Your task to perform on an android device: Show me recent news Image 0: 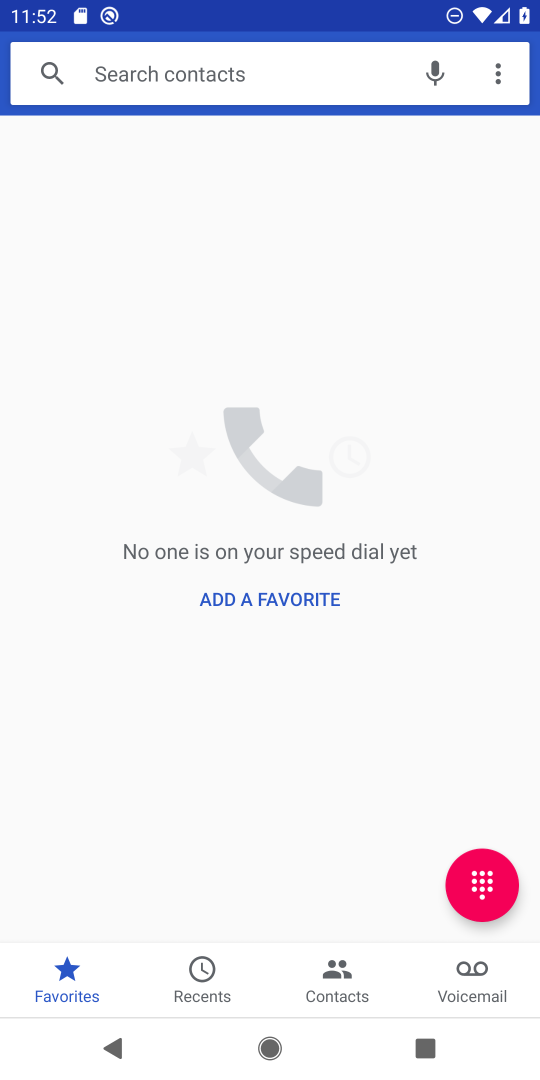
Step 0: press back button
Your task to perform on an android device: Show me recent news Image 1: 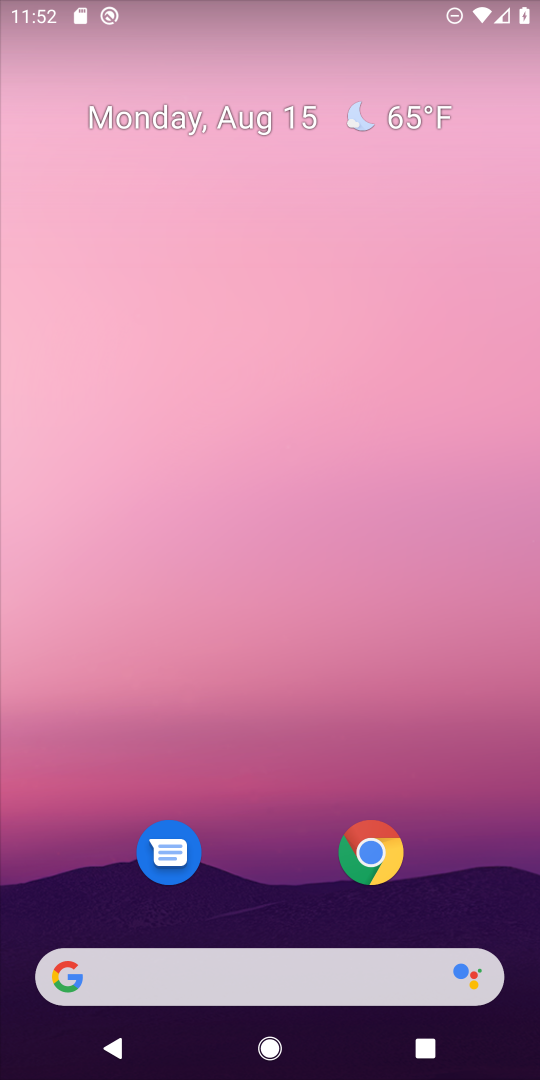
Step 1: click (275, 967)
Your task to perform on an android device: Show me recent news Image 2: 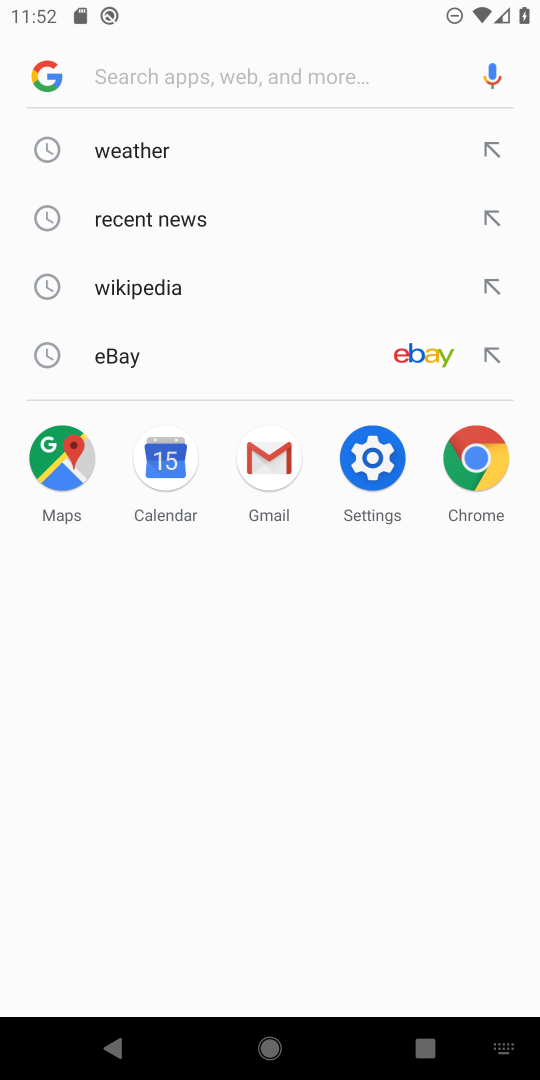
Step 2: click (159, 228)
Your task to perform on an android device: Show me recent news Image 3: 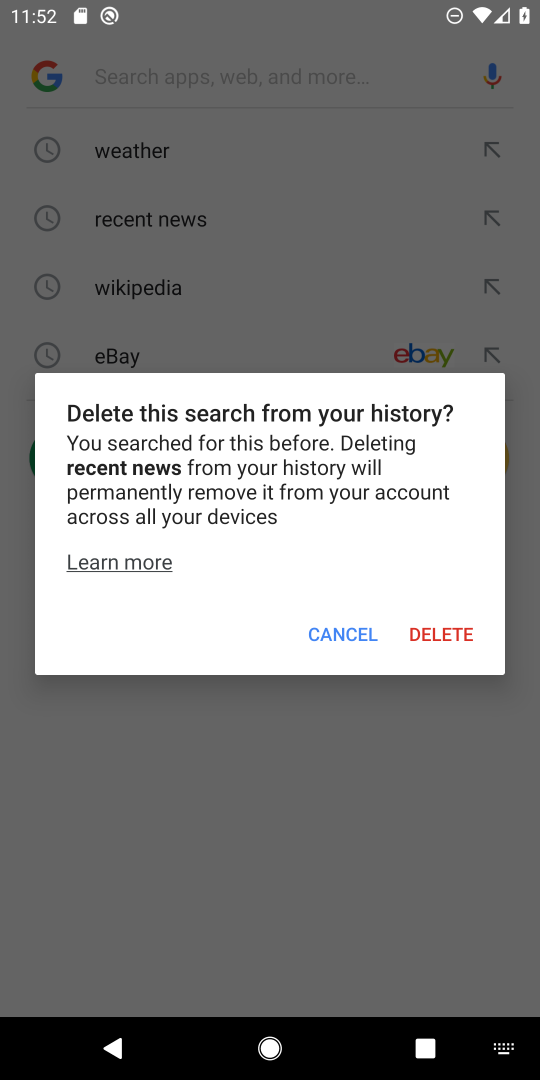
Step 3: click (320, 623)
Your task to perform on an android device: Show me recent news Image 4: 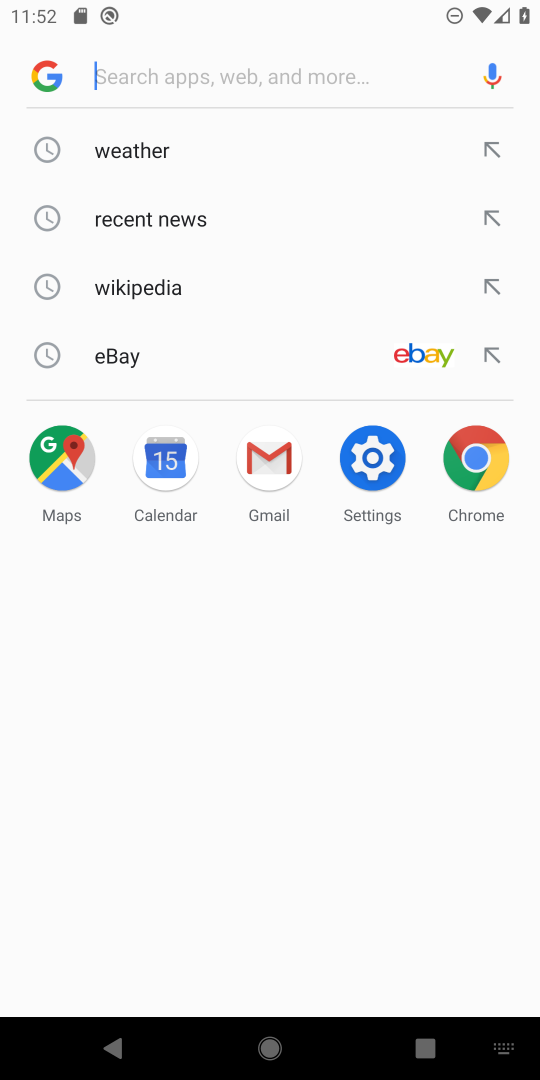
Step 4: click (213, 226)
Your task to perform on an android device: Show me recent news Image 5: 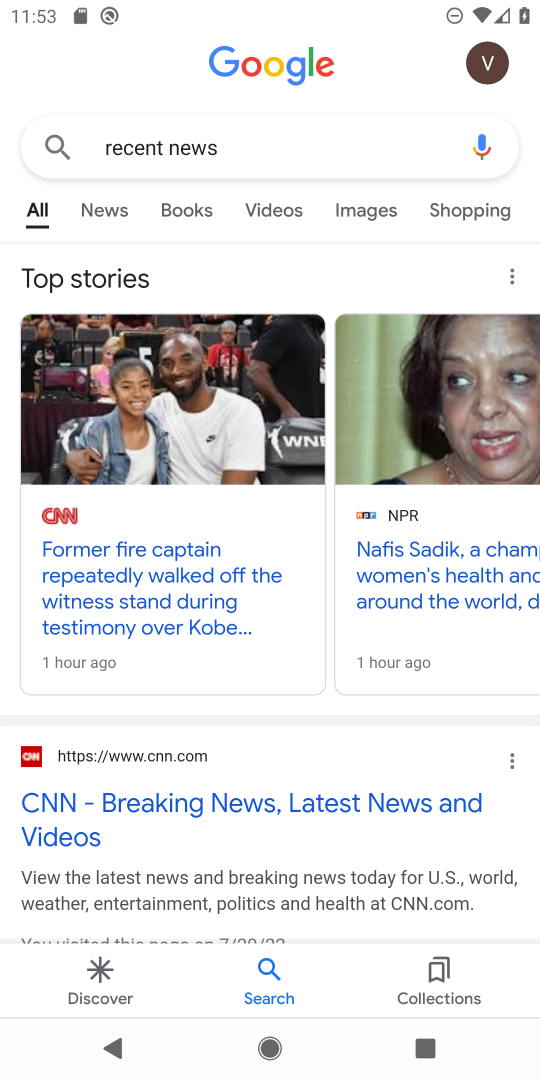
Step 5: task complete